Your task to perform on an android device: check data usage Image 0: 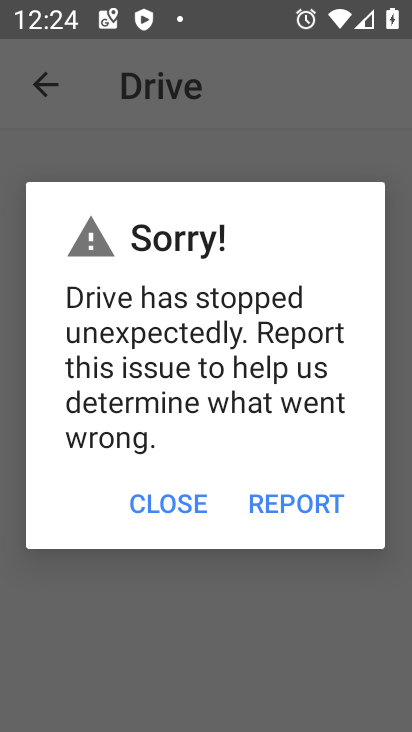
Step 0: press home button
Your task to perform on an android device: check data usage Image 1: 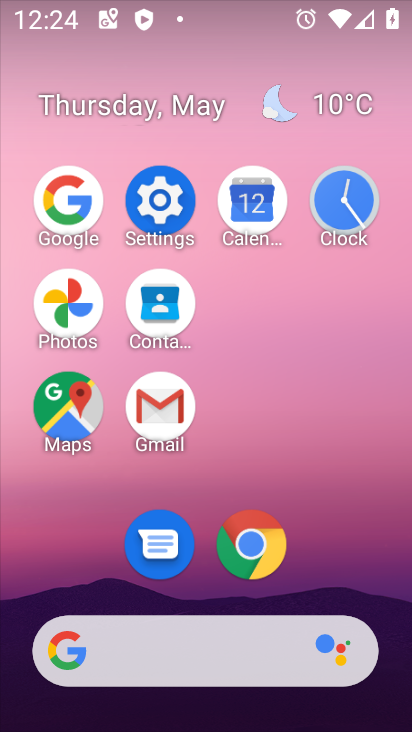
Step 1: click (132, 226)
Your task to perform on an android device: check data usage Image 2: 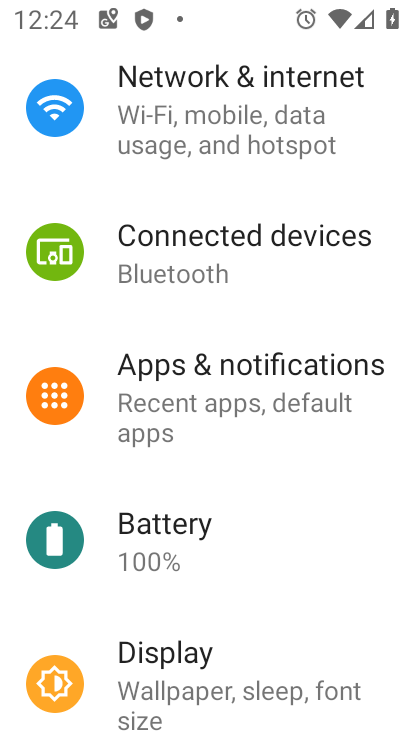
Step 2: drag from (228, 179) to (219, 566)
Your task to perform on an android device: check data usage Image 3: 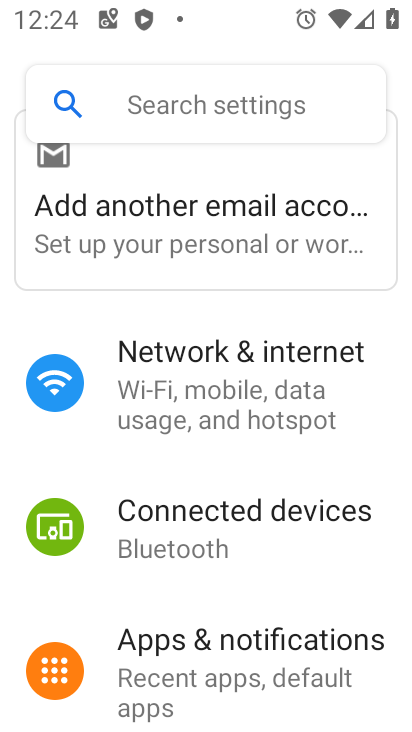
Step 3: click (261, 417)
Your task to perform on an android device: check data usage Image 4: 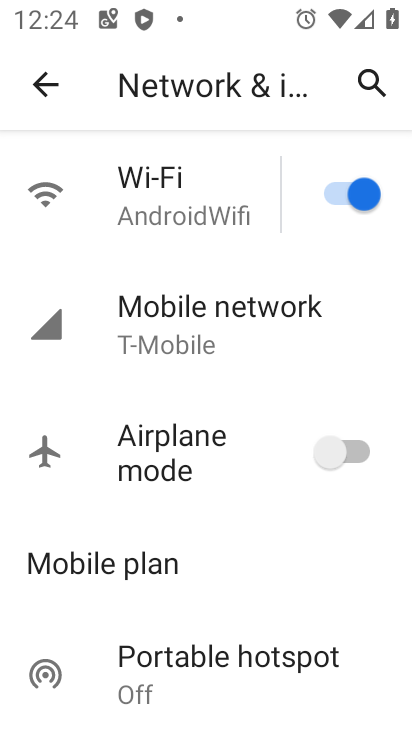
Step 4: click (214, 319)
Your task to perform on an android device: check data usage Image 5: 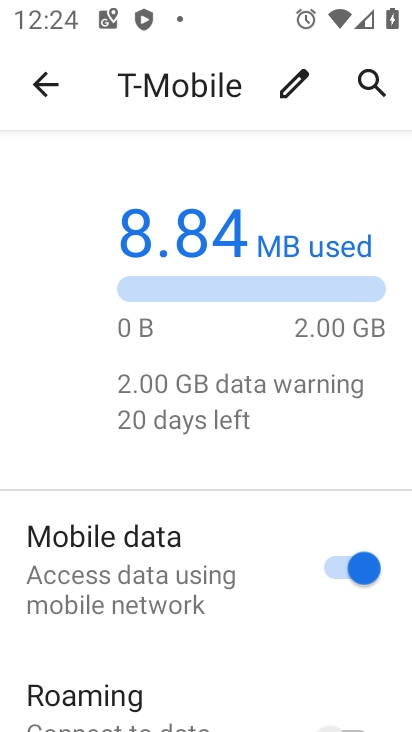
Step 5: drag from (230, 617) to (227, 322)
Your task to perform on an android device: check data usage Image 6: 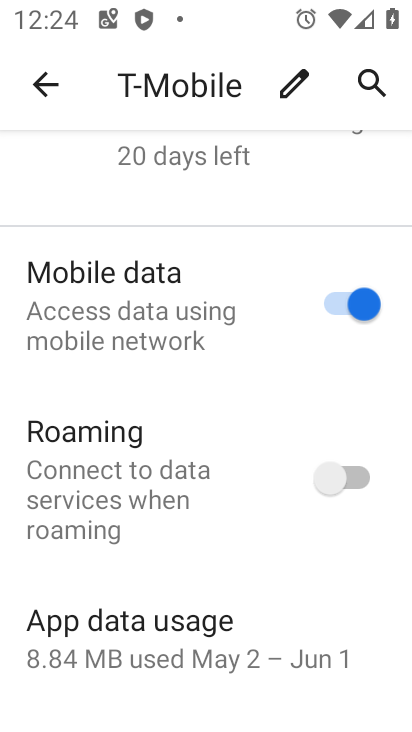
Step 6: click (188, 629)
Your task to perform on an android device: check data usage Image 7: 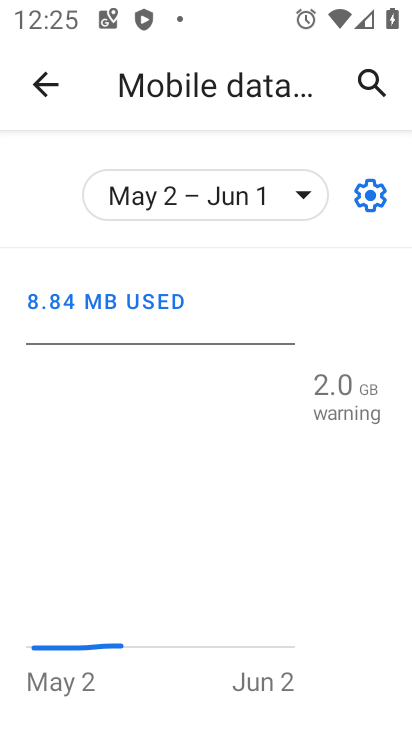
Step 7: task complete